Your task to perform on an android device: Open settings Image 0: 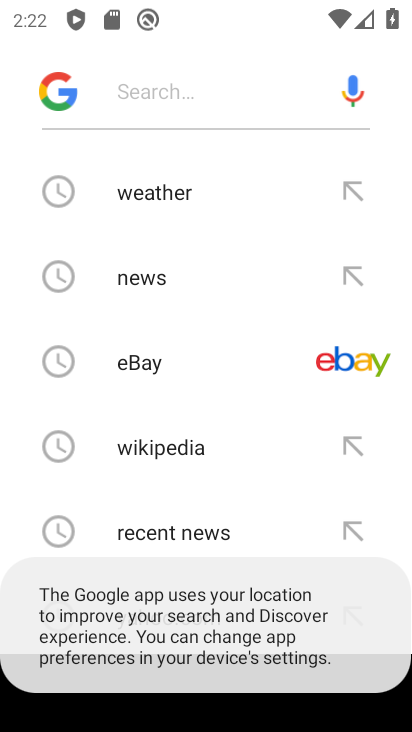
Step 0: press back button
Your task to perform on an android device: Open settings Image 1: 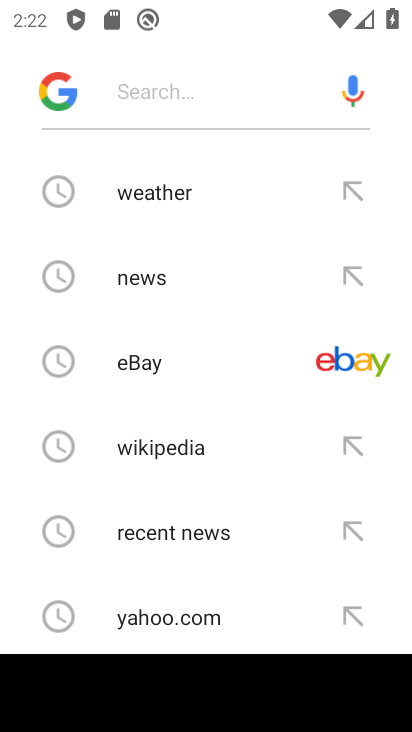
Step 1: press back button
Your task to perform on an android device: Open settings Image 2: 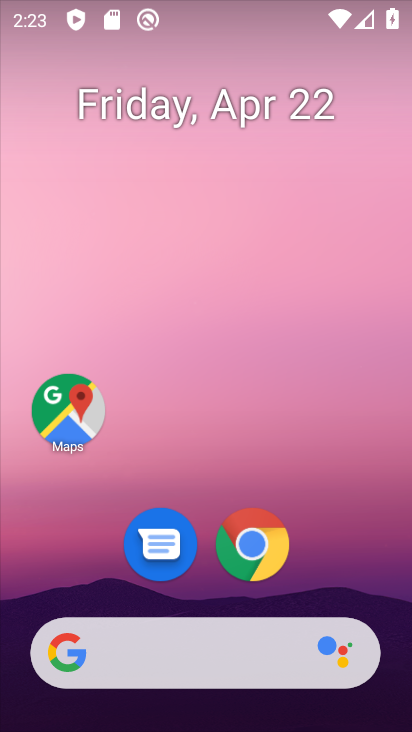
Step 2: drag from (338, 557) to (298, 27)
Your task to perform on an android device: Open settings Image 3: 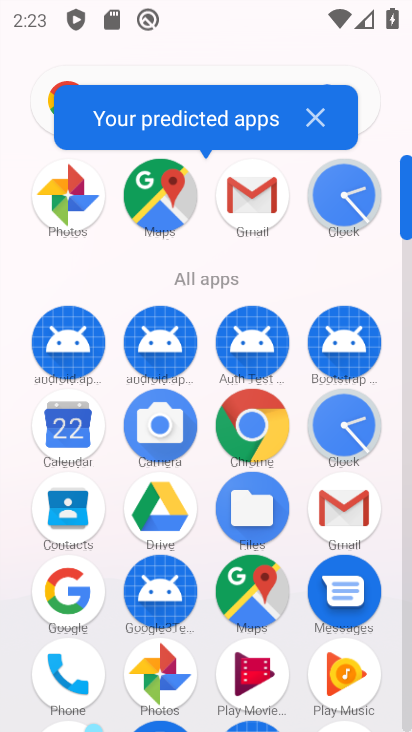
Step 3: click (406, 636)
Your task to perform on an android device: Open settings Image 4: 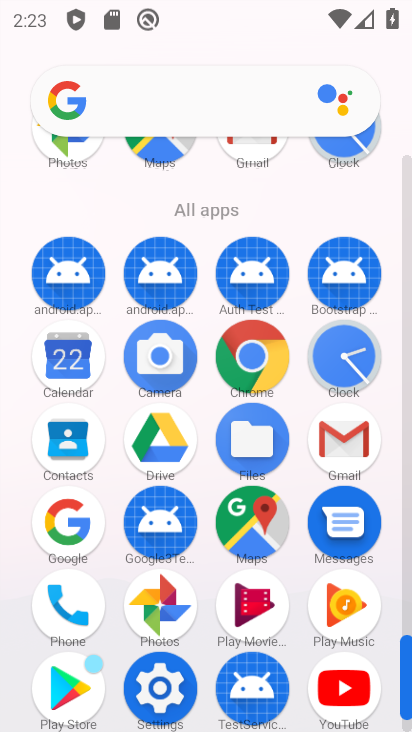
Step 4: click (193, 689)
Your task to perform on an android device: Open settings Image 5: 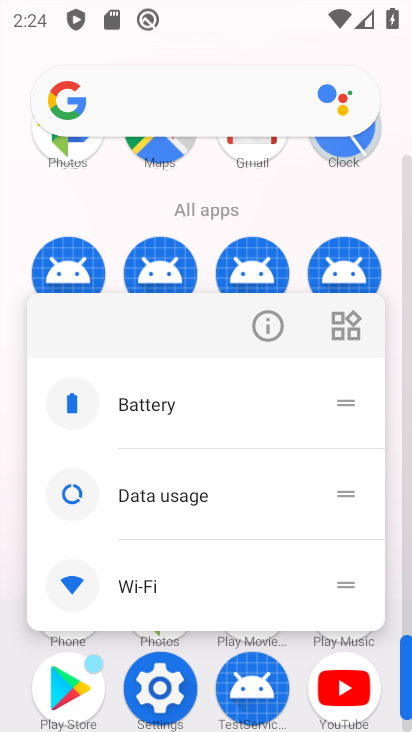
Step 5: click (169, 696)
Your task to perform on an android device: Open settings Image 6: 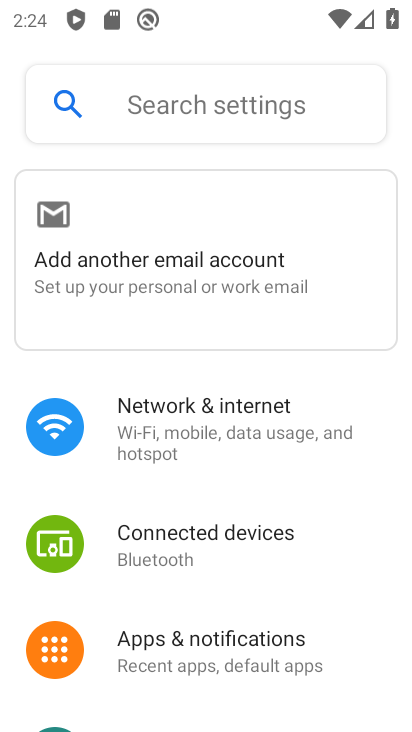
Step 6: click (150, 461)
Your task to perform on an android device: Open settings Image 7: 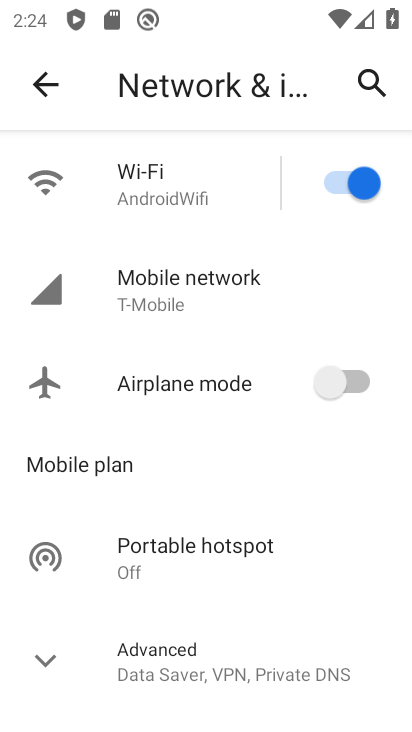
Step 7: task complete